Your task to perform on an android device: toggle pop-ups in chrome Image 0: 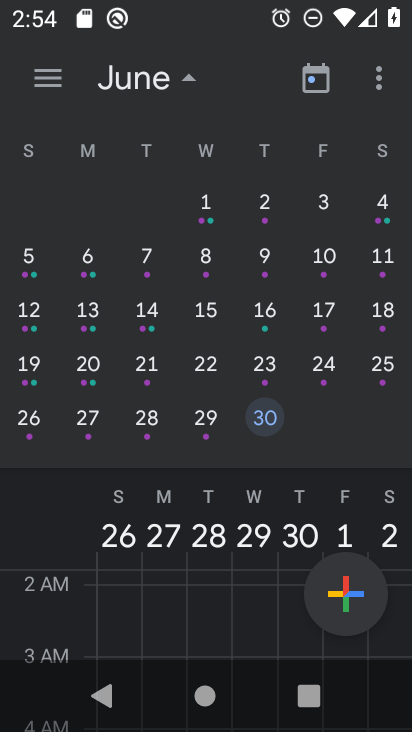
Step 0: press home button
Your task to perform on an android device: toggle pop-ups in chrome Image 1: 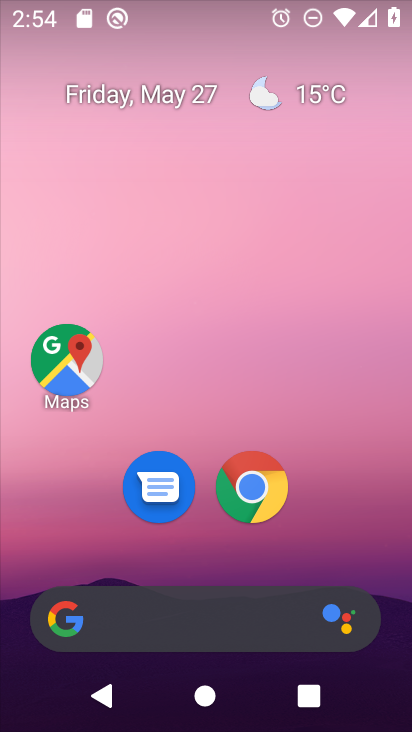
Step 1: click (257, 472)
Your task to perform on an android device: toggle pop-ups in chrome Image 2: 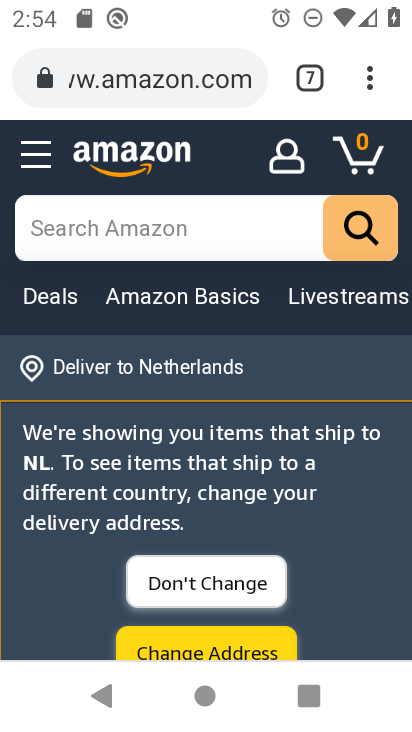
Step 2: click (381, 85)
Your task to perform on an android device: toggle pop-ups in chrome Image 3: 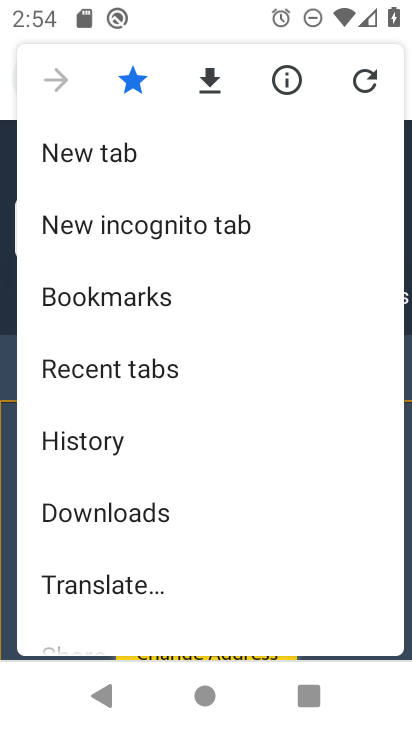
Step 3: drag from (144, 555) to (180, 108)
Your task to perform on an android device: toggle pop-ups in chrome Image 4: 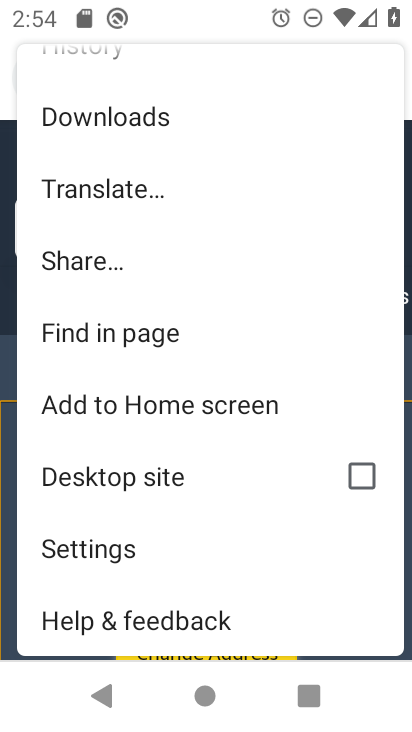
Step 4: click (115, 573)
Your task to perform on an android device: toggle pop-ups in chrome Image 5: 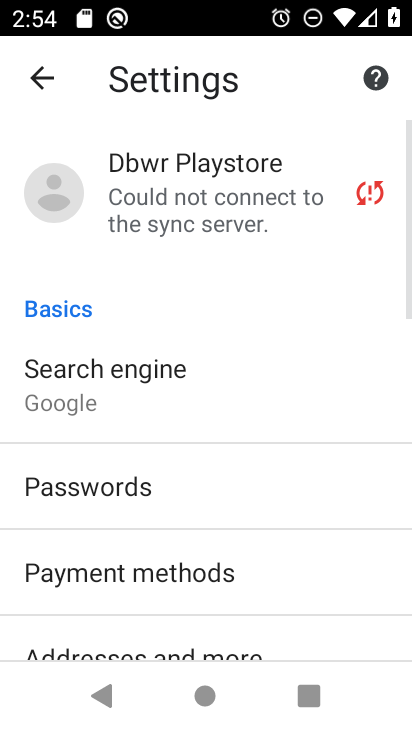
Step 5: drag from (115, 573) to (138, 77)
Your task to perform on an android device: toggle pop-ups in chrome Image 6: 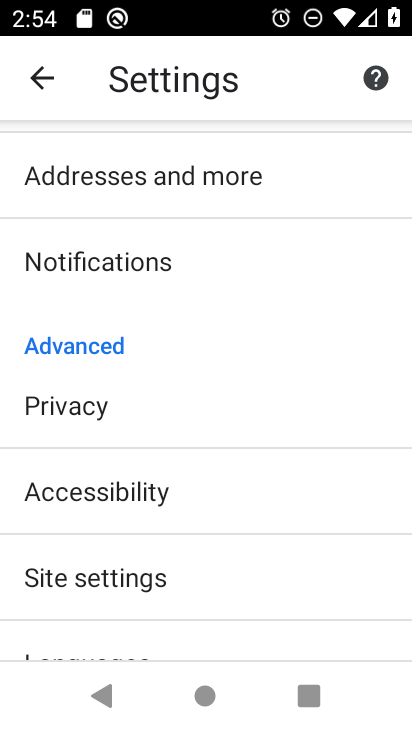
Step 6: drag from (157, 585) to (159, 218)
Your task to perform on an android device: toggle pop-ups in chrome Image 7: 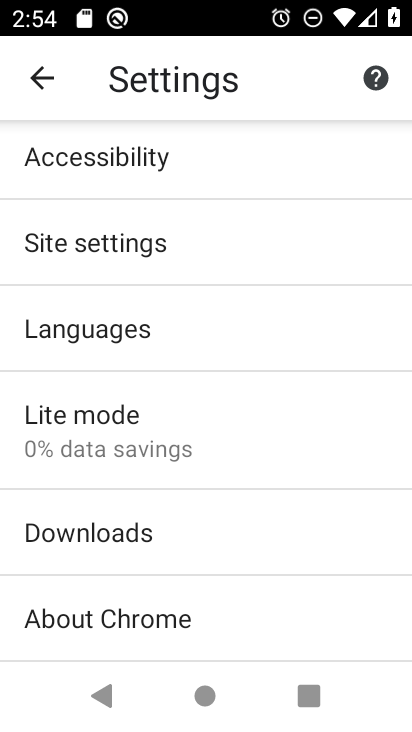
Step 7: drag from (176, 592) to (153, 219)
Your task to perform on an android device: toggle pop-ups in chrome Image 8: 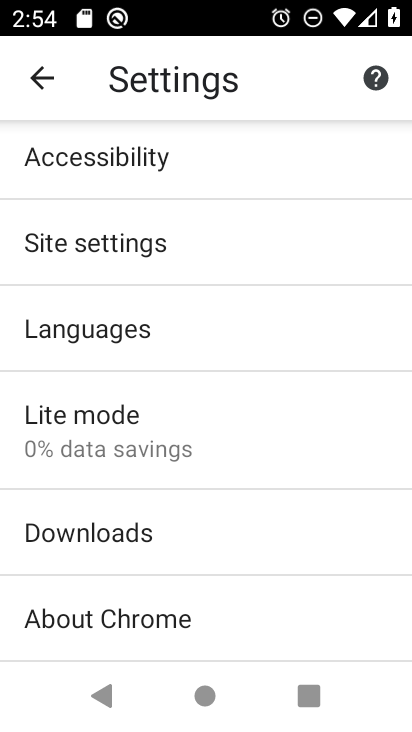
Step 8: click (136, 261)
Your task to perform on an android device: toggle pop-ups in chrome Image 9: 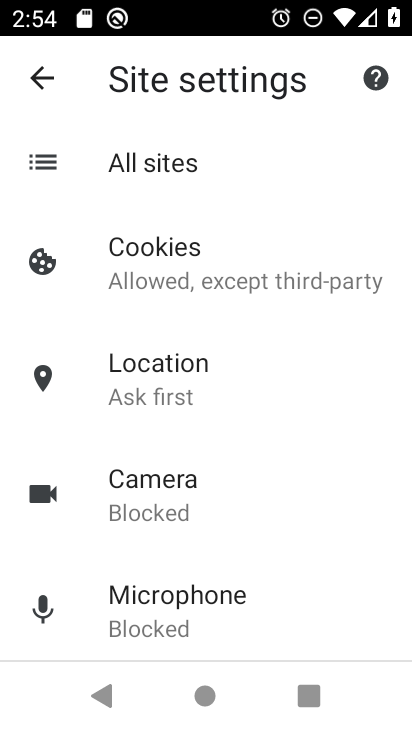
Step 9: drag from (78, 594) to (108, 323)
Your task to perform on an android device: toggle pop-ups in chrome Image 10: 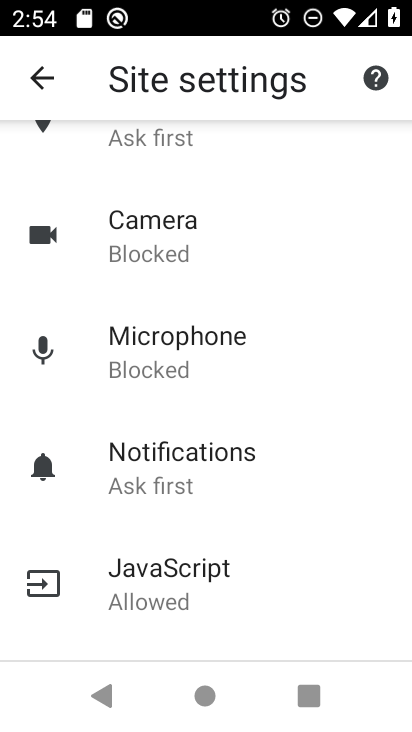
Step 10: drag from (61, 623) to (117, 241)
Your task to perform on an android device: toggle pop-ups in chrome Image 11: 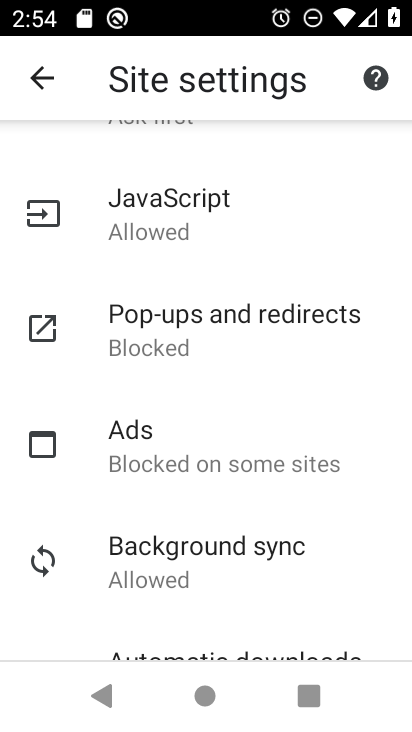
Step 11: click (174, 320)
Your task to perform on an android device: toggle pop-ups in chrome Image 12: 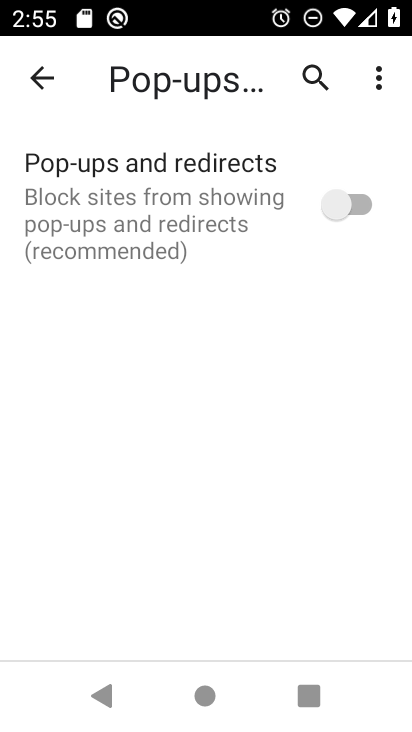
Step 12: click (342, 209)
Your task to perform on an android device: toggle pop-ups in chrome Image 13: 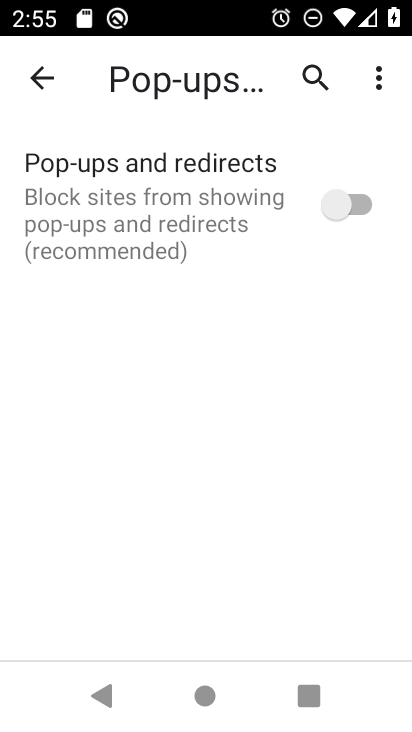
Step 13: click (342, 209)
Your task to perform on an android device: toggle pop-ups in chrome Image 14: 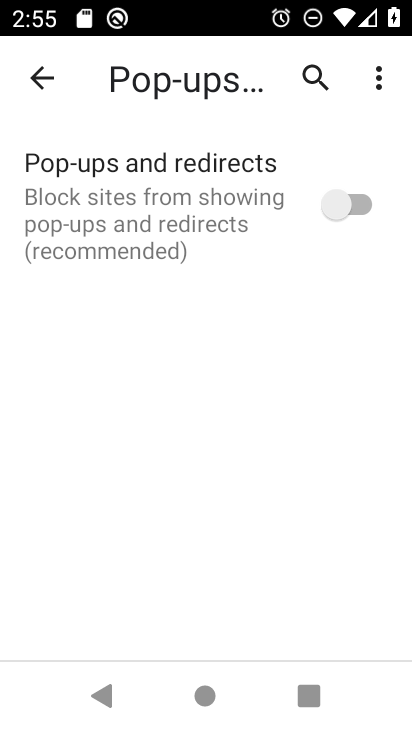
Step 14: click (342, 209)
Your task to perform on an android device: toggle pop-ups in chrome Image 15: 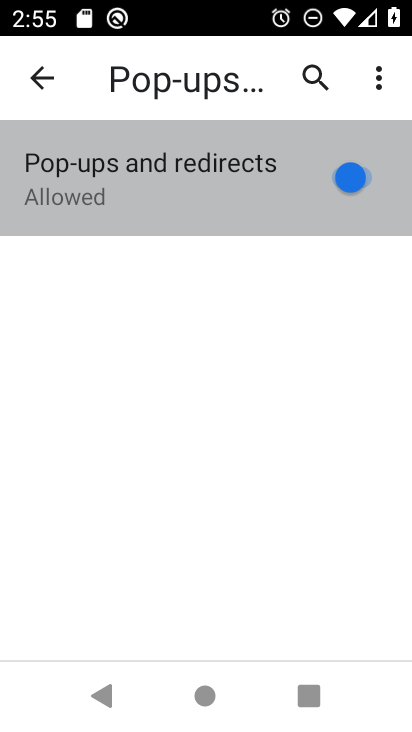
Step 15: task complete